Your task to perform on an android device: choose inbox layout in the gmail app Image 0: 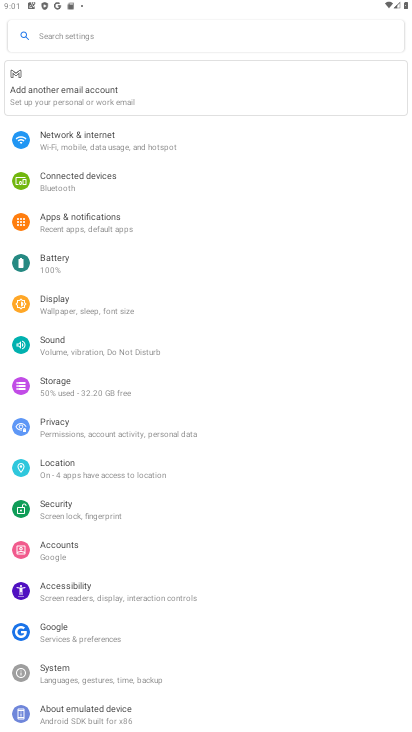
Step 0: press home button
Your task to perform on an android device: choose inbox layout in the gmail app Image 1: 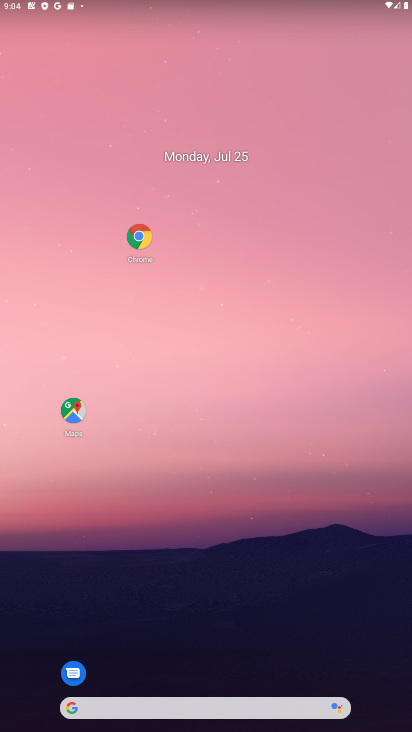
Step 1: drag from (174, 605) to (170, 72)
Your task to perform on an android device: choose inbox layout in the gmail app Image 2: 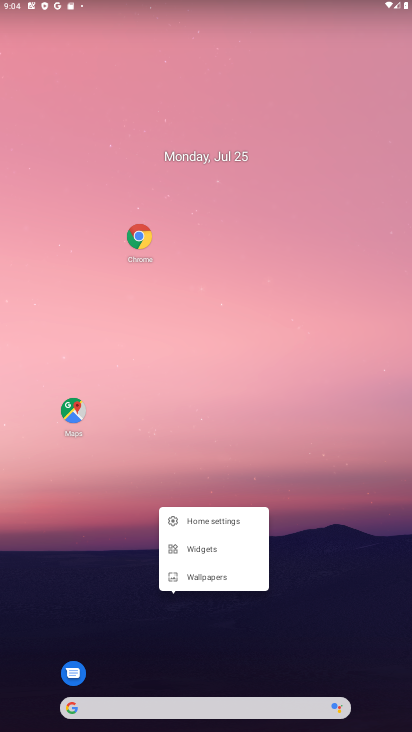
Step 2: click (300, 376)
Your task to perform on an android device: choose inbox layout in the gmail app Image 3: 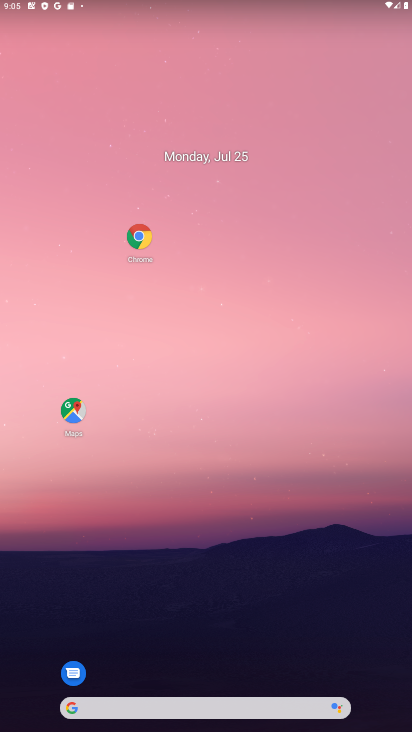
Step 3: task complete